Your task to perform on an android device: Open notification settings Image 0: 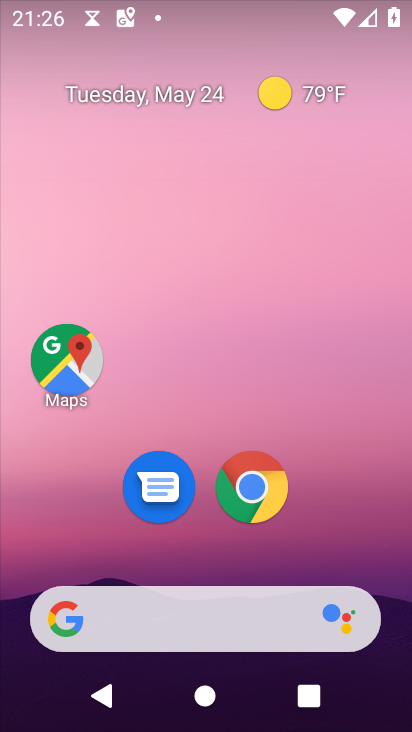
Step 0: drag from (373, 552) to (295, 94)
Your task to perform on an android device: Open notification settings Image 1: 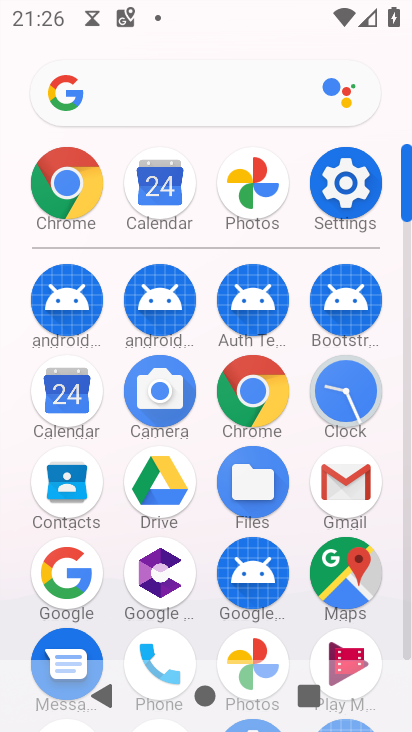
Step 1: click (356, 191)
Your task to perform on an android device: Open notification settings Image 2: 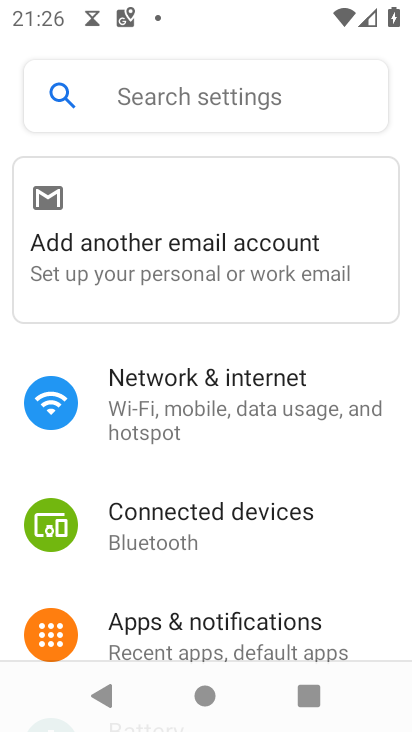
Step 2: click (196, 620)
Your task to perform on an android device: Open notification settings Image 3: 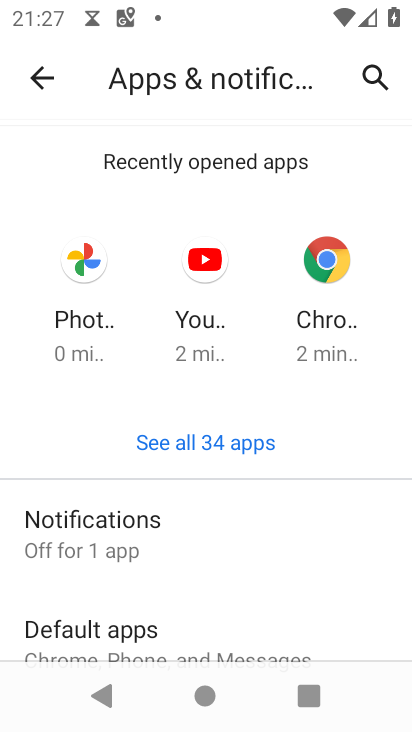
Step 3: task complete